Your task to perform on an android device: toggle location history Image 0: 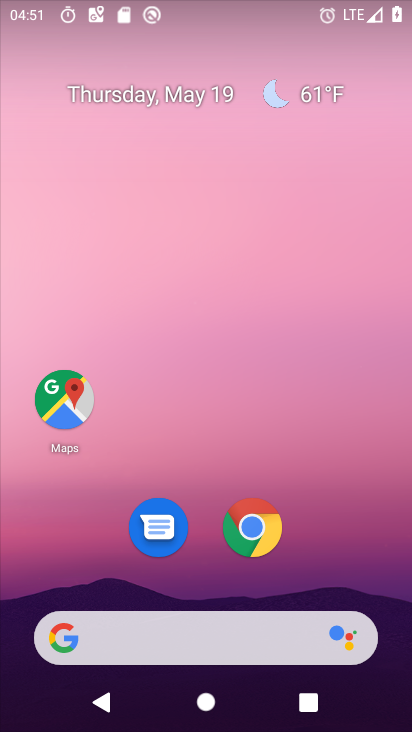
Step 0: drag from (228, 592) to (264, 131)
Your task to perform on an android device: toggle location history Image 1: 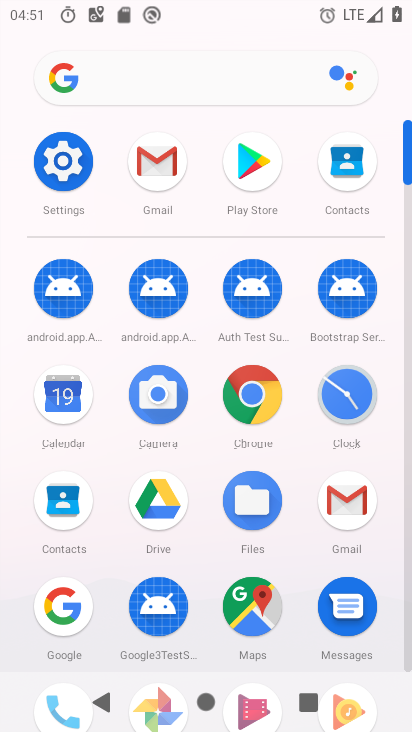
Step 1: click (82, 167)
Your task to perform on an android device: toggle location history Image 2: 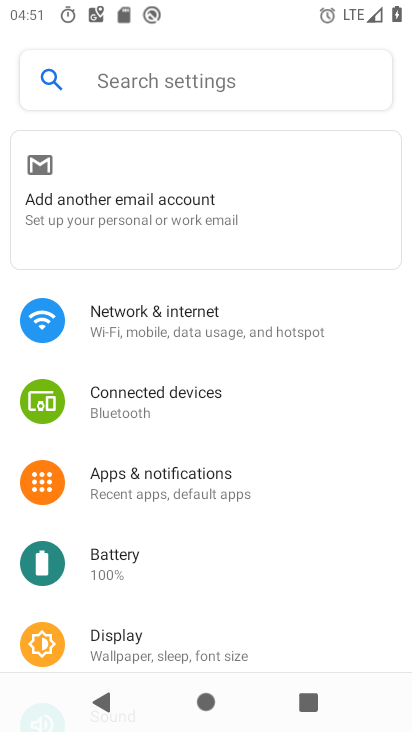
Step 2: drag from (174, 581) to (242, 187)
Your task to perform on an android device: toggle location history Image 3: 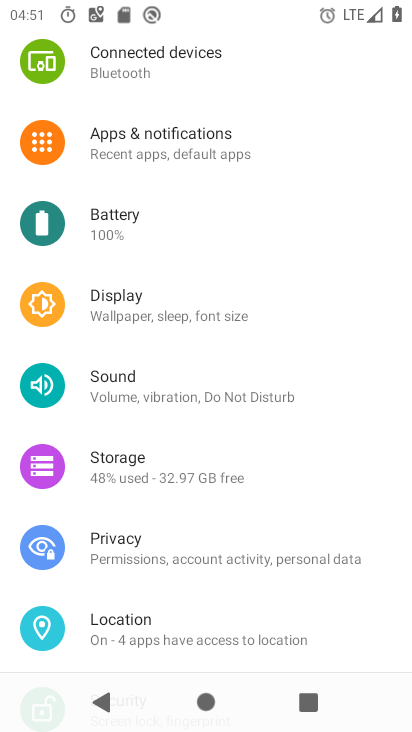
Step 3: click (126, 637)
Your task to perform on an android device: toggle location history Image 4: 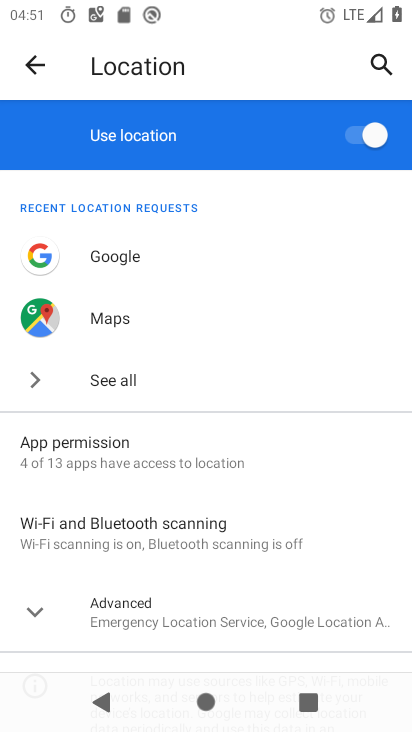
Step 4: click (180, 614)
Your task to perform on an android device: toggle location history Image 5: 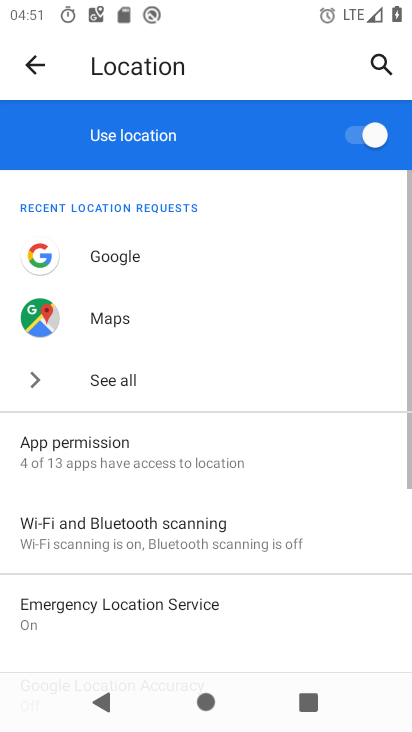
Step 5: drag from (211, 608) to (266, 215)
Your task to perform on an android device: toggle location history Image 6: 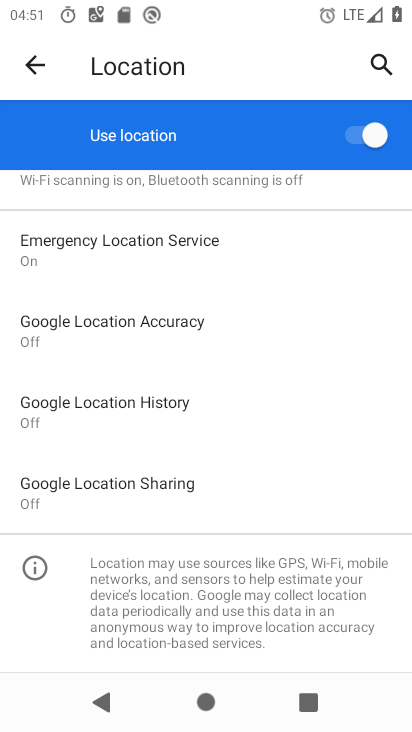
Step 6: click (109, 423)
Your task to perform on an android device: toggle location history Image 7: 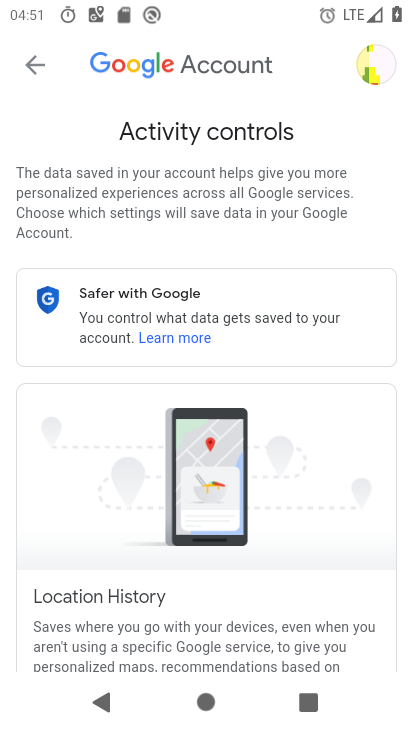
Step 7: drag from (213, 626) to (306, 33)
Your task to perform on an android device: toggle location history Image 8: 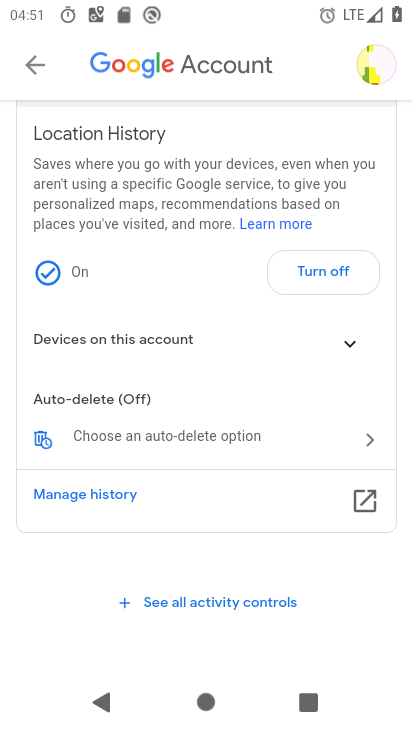
Step 8: click (313, 277)
Your task to perform on an android device: toggle location history Image 9: 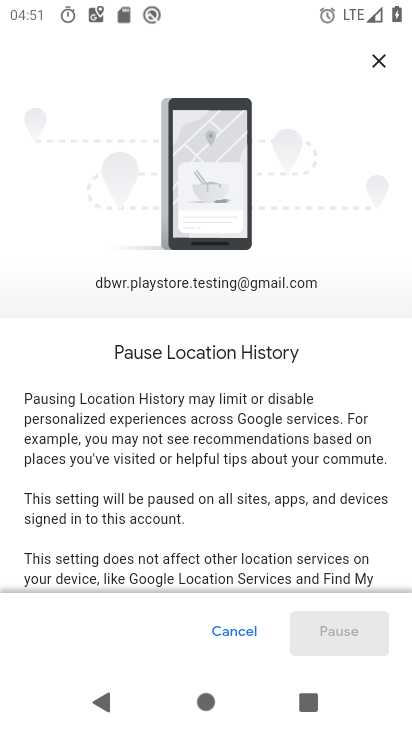
Step 9: drag from (235, 562) to (306, 55)
Your task to perform on an android device: toggle location history Image 10: 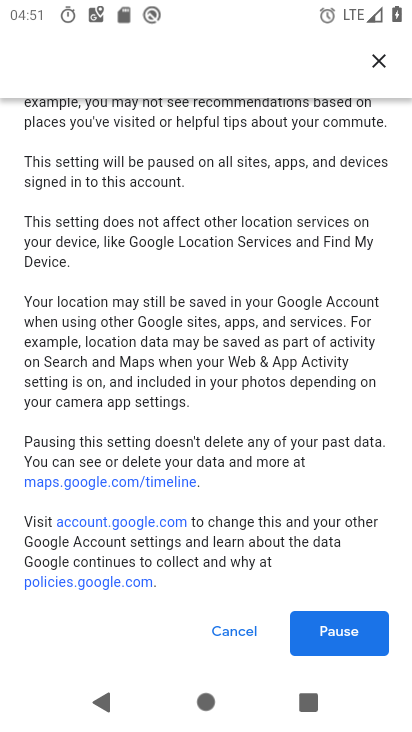
Step 10: drag from (264, 527) to (320, 80)
Your task to perform on an android device: toggle location history Image 11: 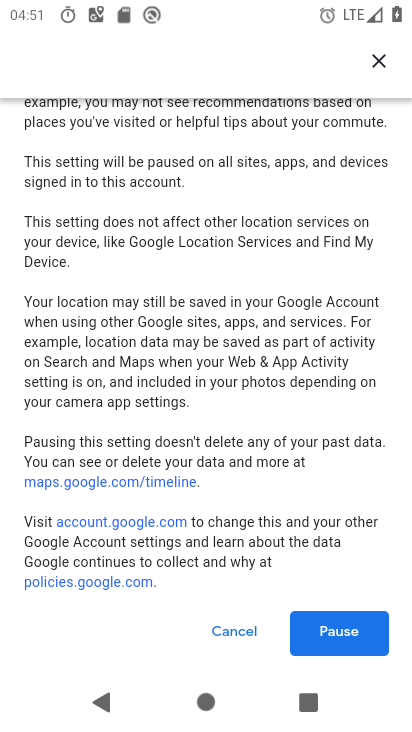
Step 11: click (332, 635)
Your task to perform on an android device: toggle location history Image 12: 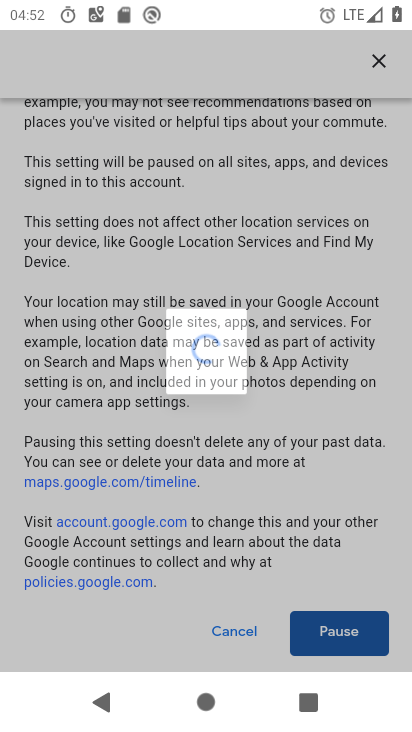
Step 12: task complete